Your task to perform on an android device: Check the news Image 0: 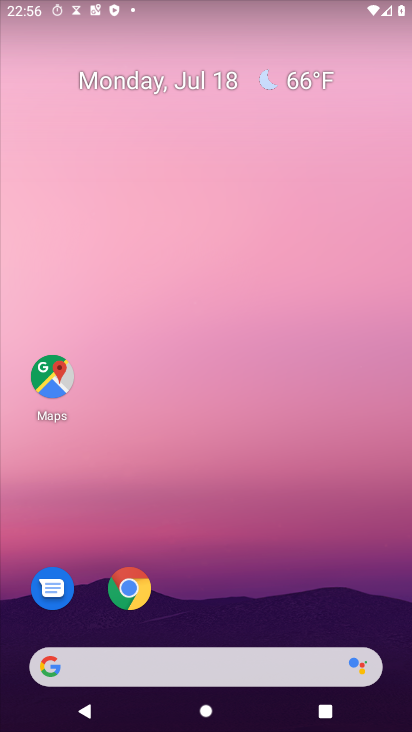
Step 0: click (165, 665)
Your task to perform on an android device: Check the news Image 1: 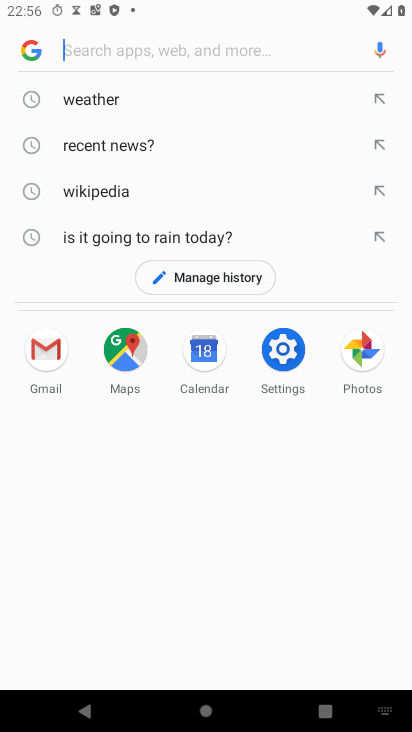
Step 1: click (120, 141)
Your task to perform on an android device: Check the news Image 2: 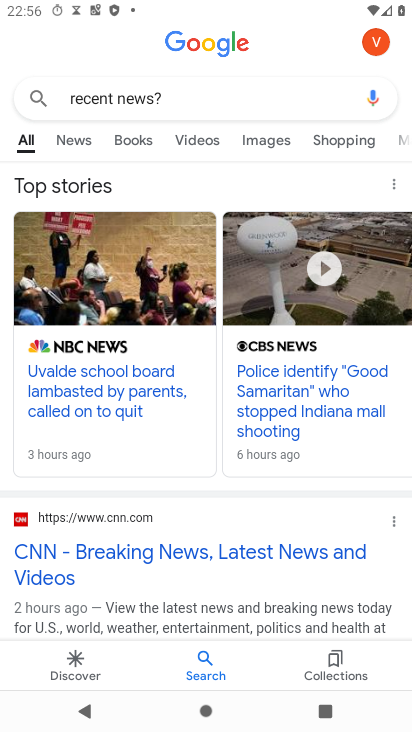
Step 2: click (87, 142)
Your task to perform on an android device: Check the news Image 3: 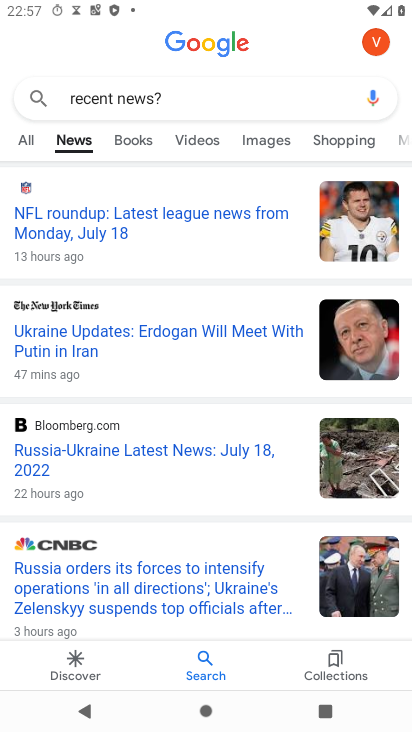
Step 3: task complete